Your task to perform on an android device: Open Amazon Image 0: 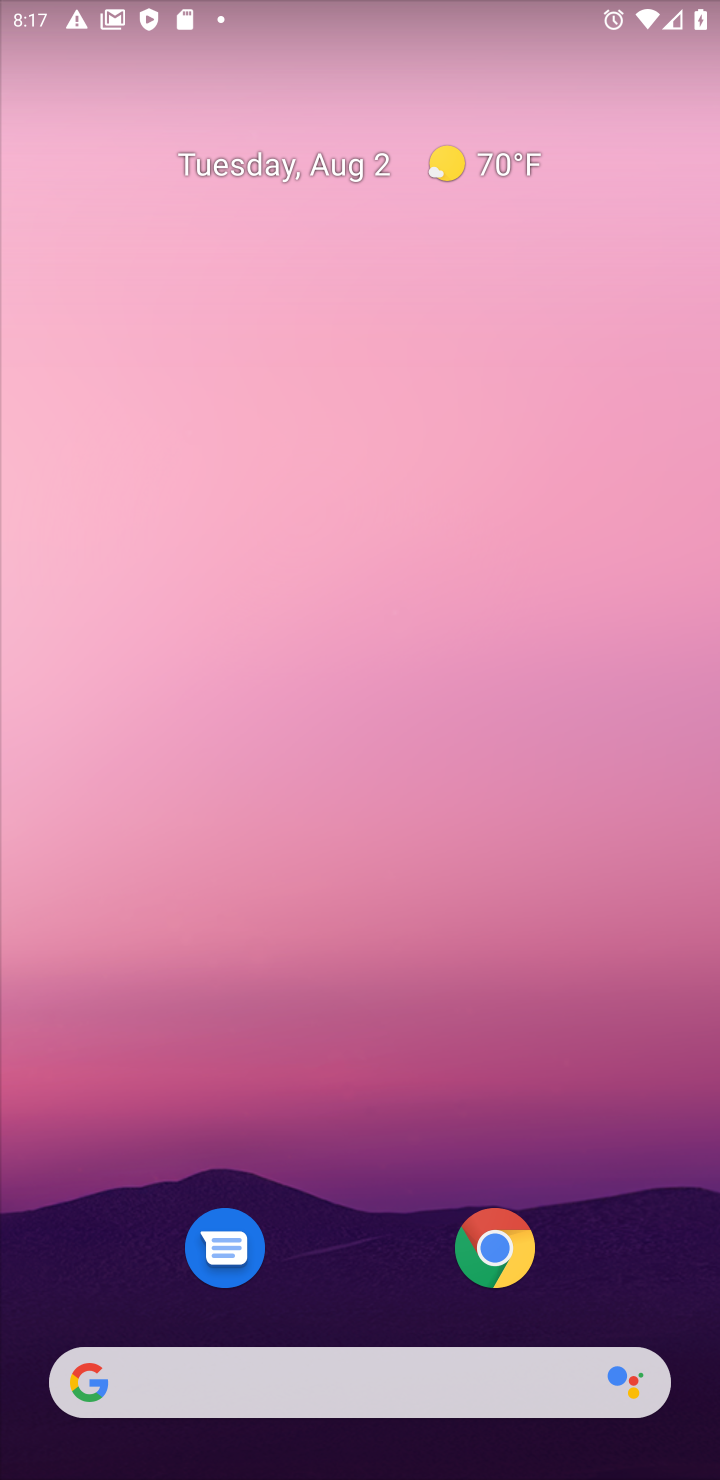
Step 0: press home button
Your task to perform on an android device: Open Amazon Image 1: 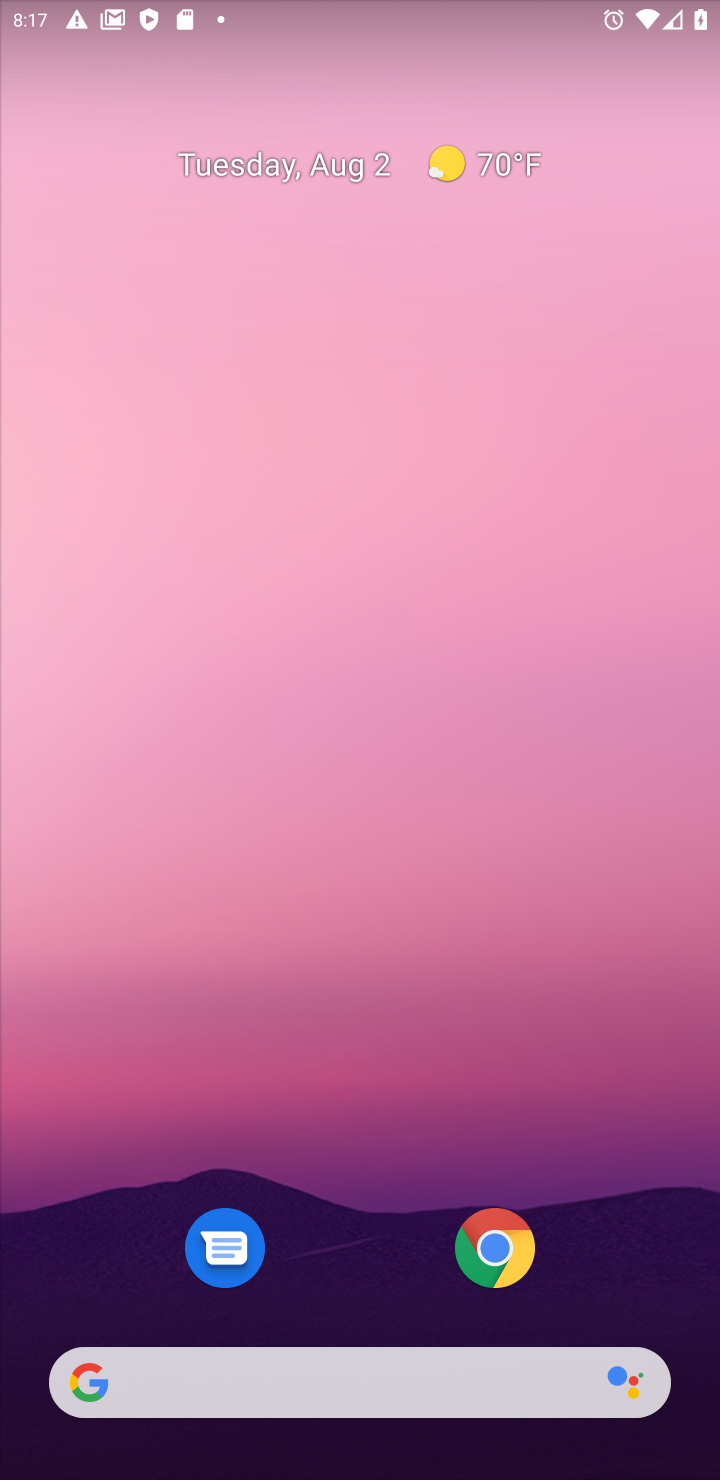
Step 1: drag from (403, 1299) to (649, 16)
Your task to perform on an android device: Open Amazon Image 2: 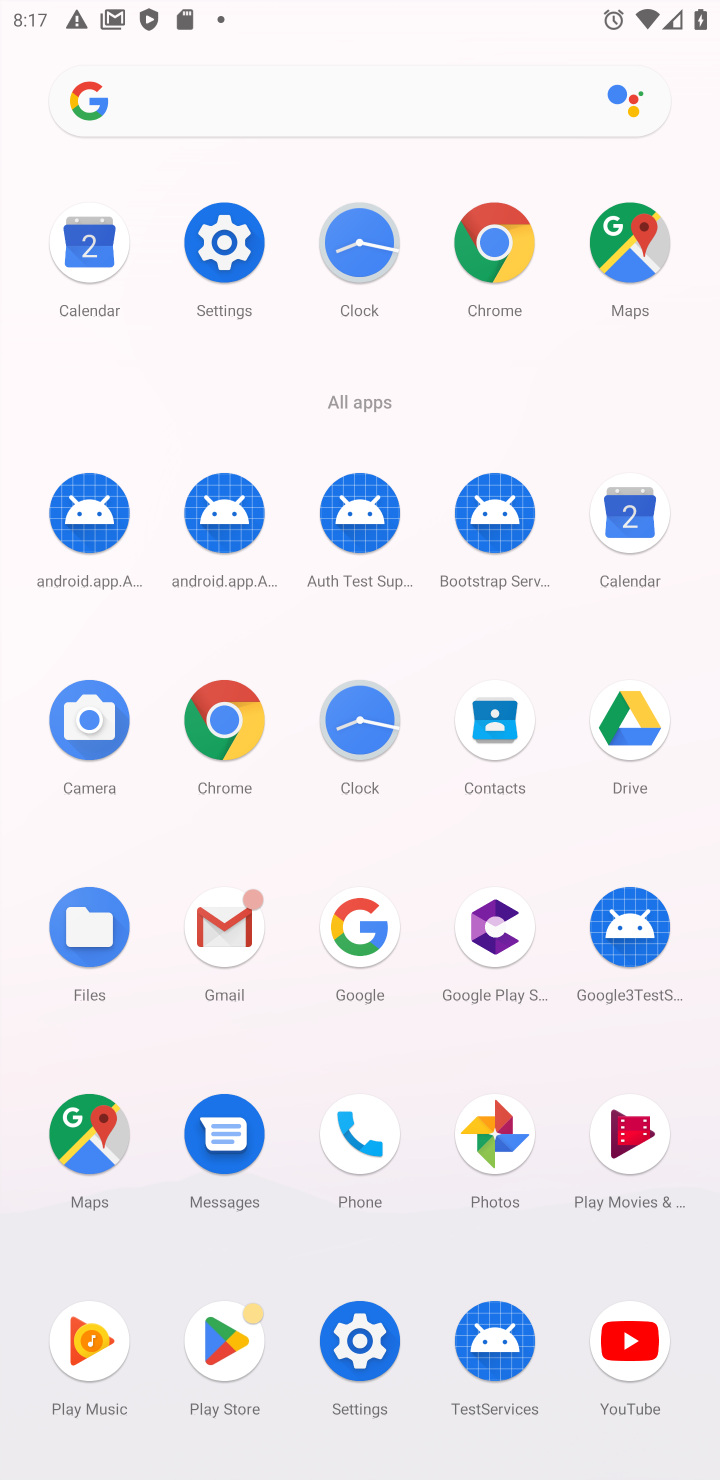
Step 2: click (212, 708)
Your task to perform on an android device: Open Amazon Image 3: 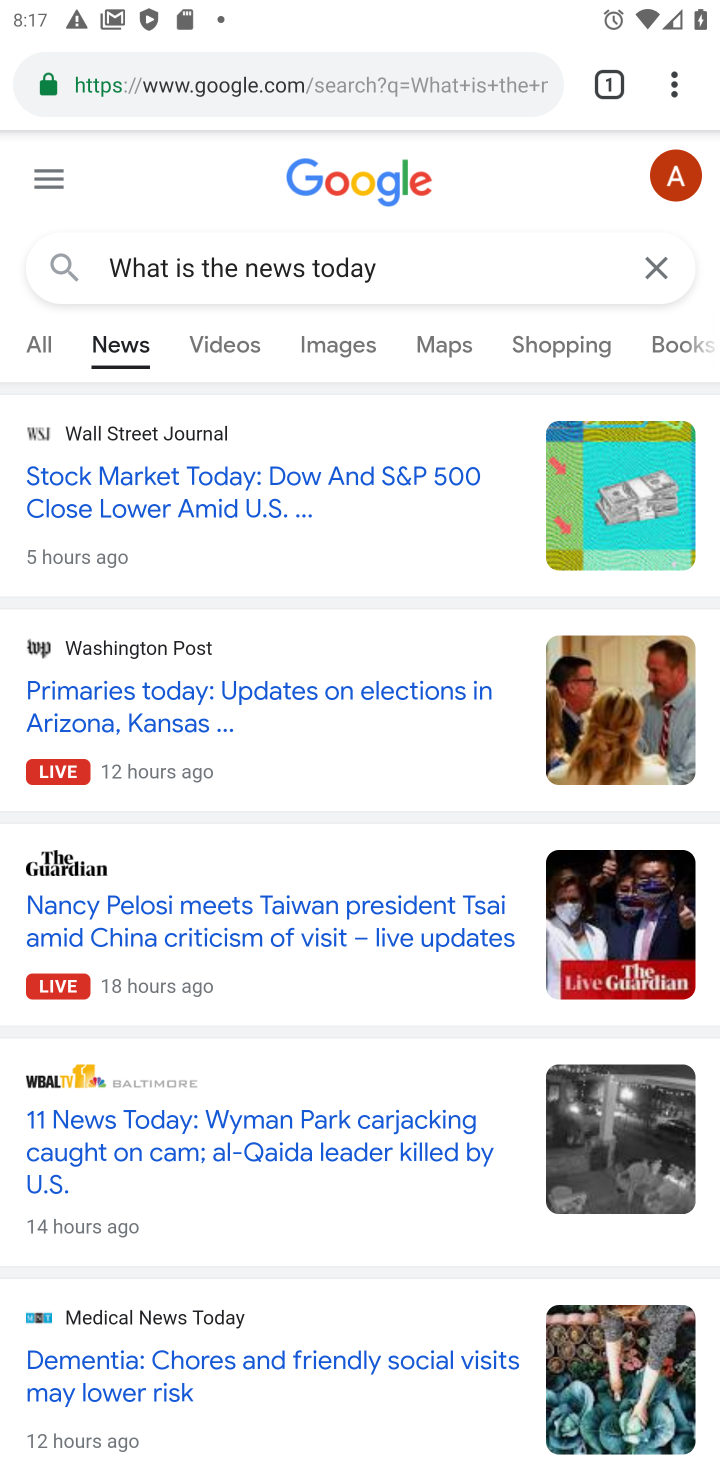
Step 3: click (650, 266)
Your task to perform on an android device: Open Amazon Image 4: 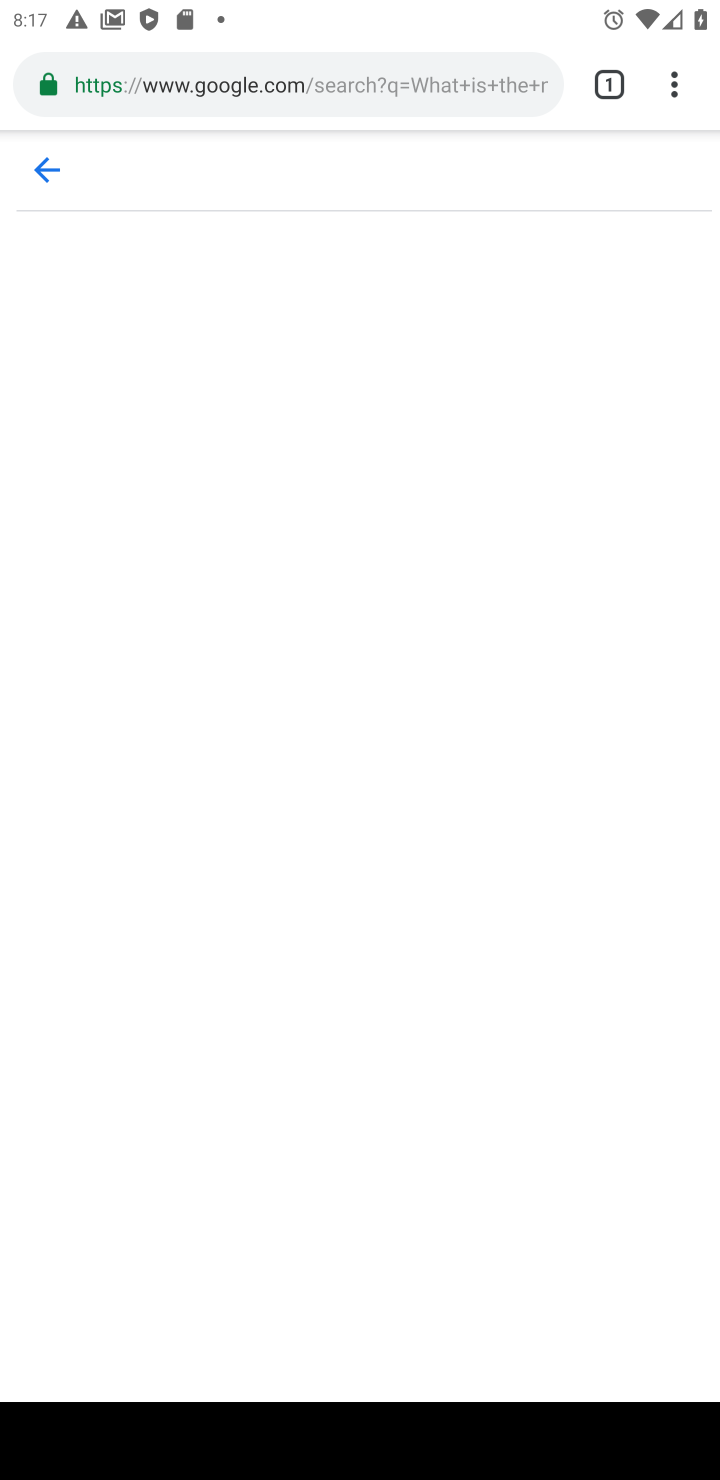
Step 4: click (288, 95)
Your task to perform on an android device: Open Amazon Image 5: 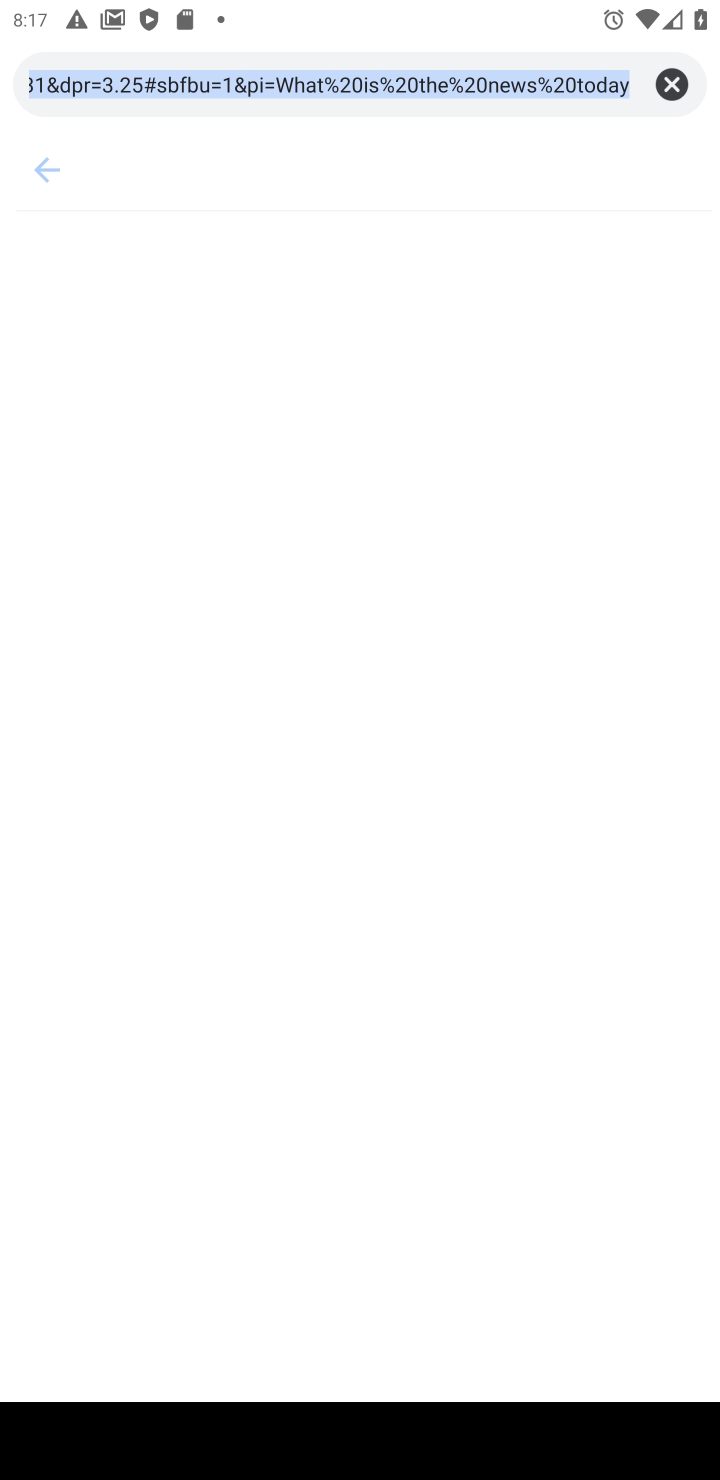
Step 5: click (676, 77)
Your task to perform on an android device: Open Amazon Image 6: 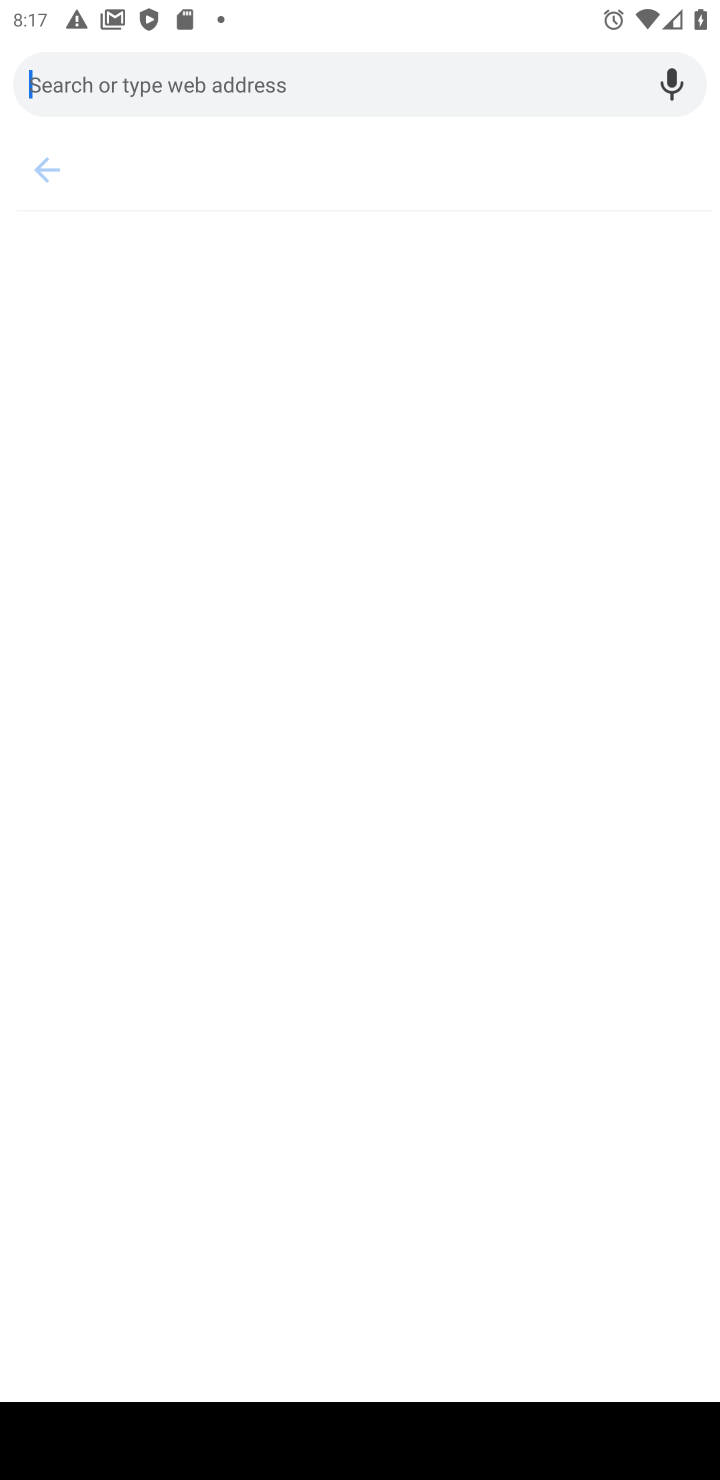
Step 6: type "Amazon"
Your task to perform on an android device: Open Amazon Image 7: 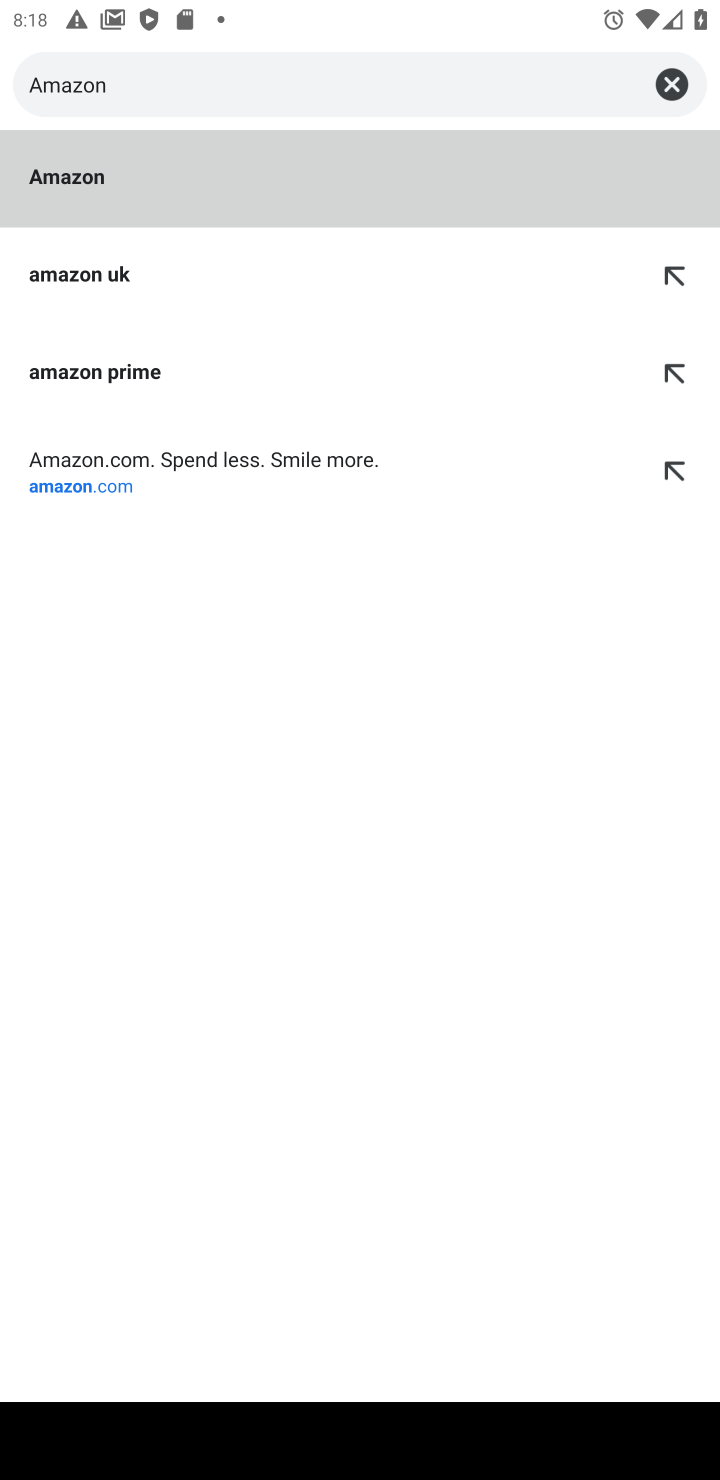
Step 7: click (66, 172)
Your task to perform on an android device: Open Amazon Image 8: 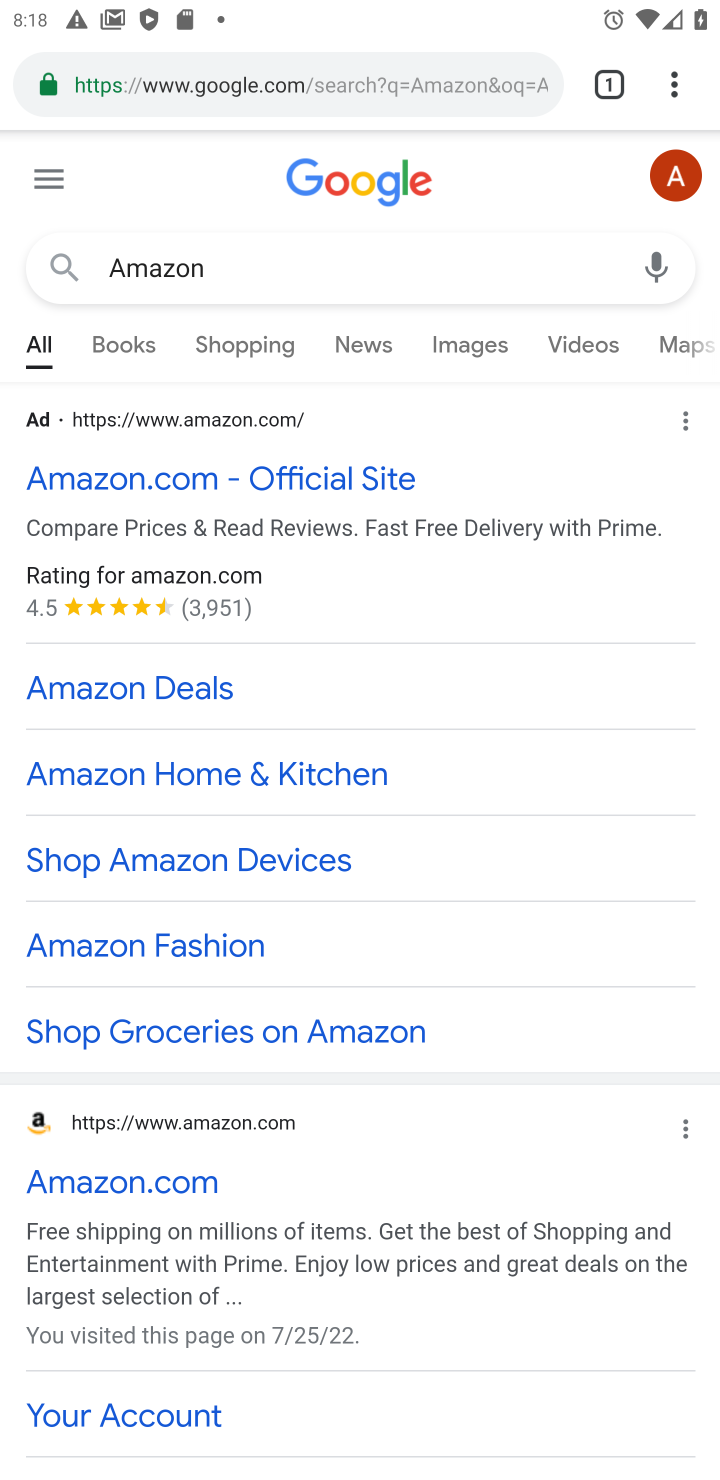
Step 8: click (229, 473)
Your task to perform on an android device: Open Amazon Image 9: 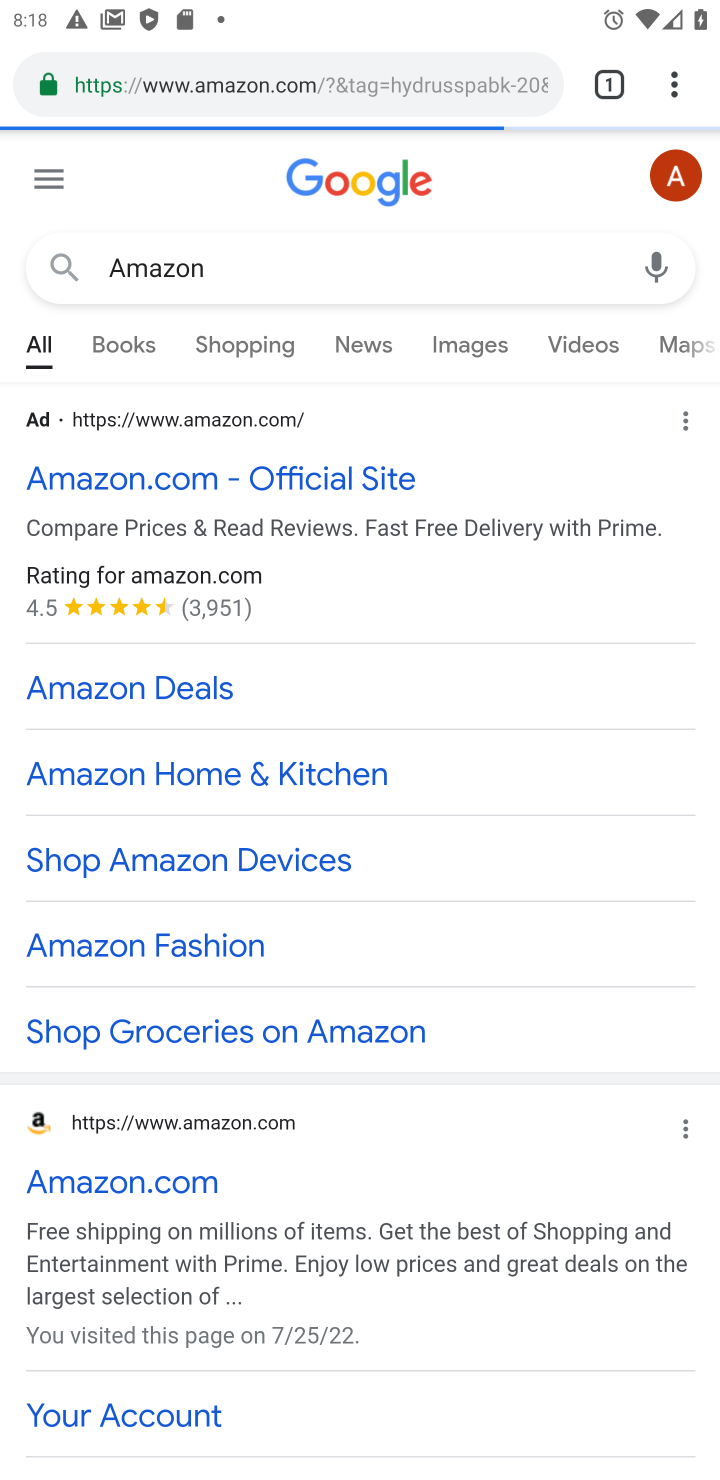
Step 9: click (147, 485)
Your task to perform on an android device: Open Amazon Image 10: 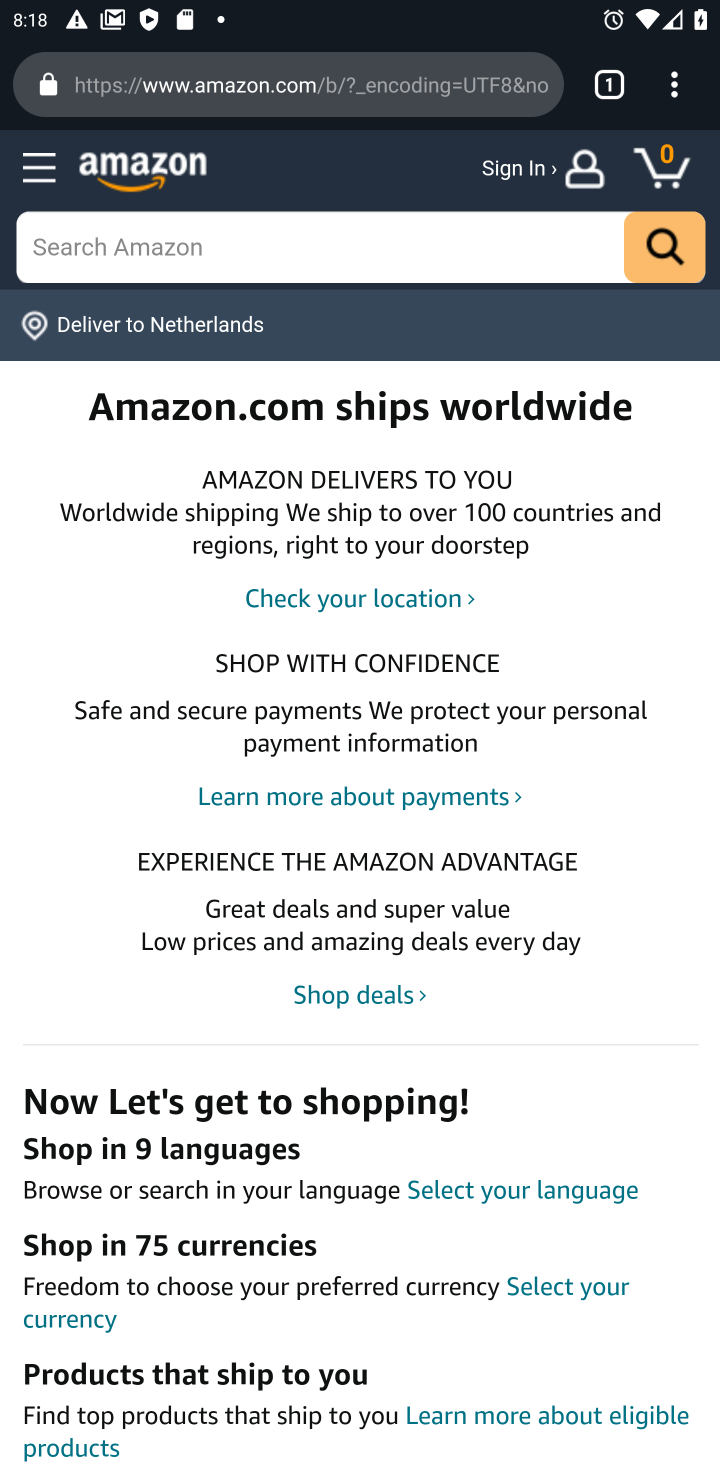
Step 10: task complete